Your task to perform on an android device: Open the phone app and click the voicemail tab. Image 0: 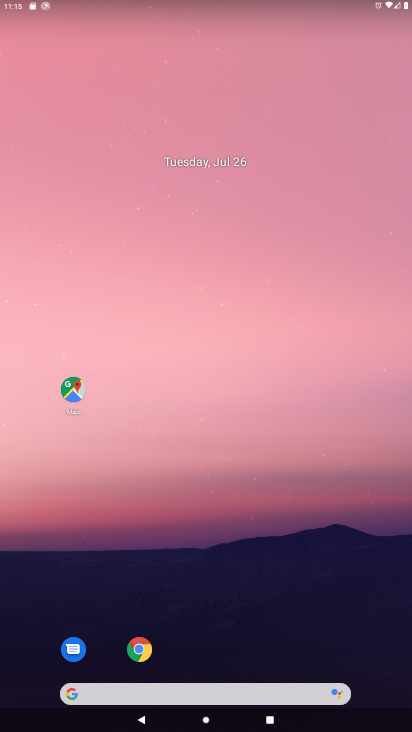
Step 0: drag from (221, 657) to (249, 104)
Your task to perform on an android device: Open the phone app and click the voicemail tab. Image 1: 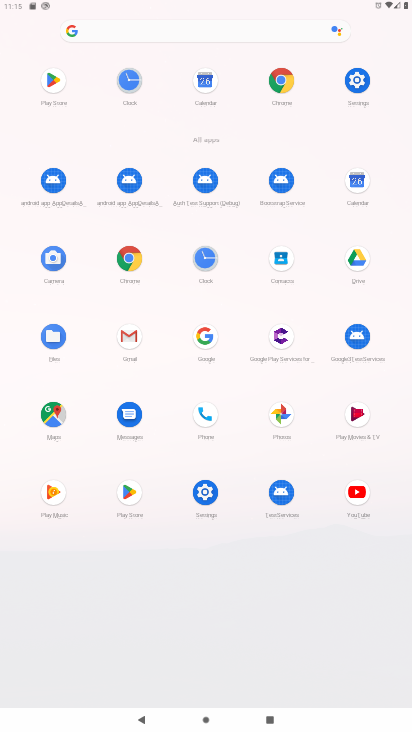
Step 1: click (203, 417)
Your task to perform on an android device: Open the phone app and click the voicemail tab. Image 2: 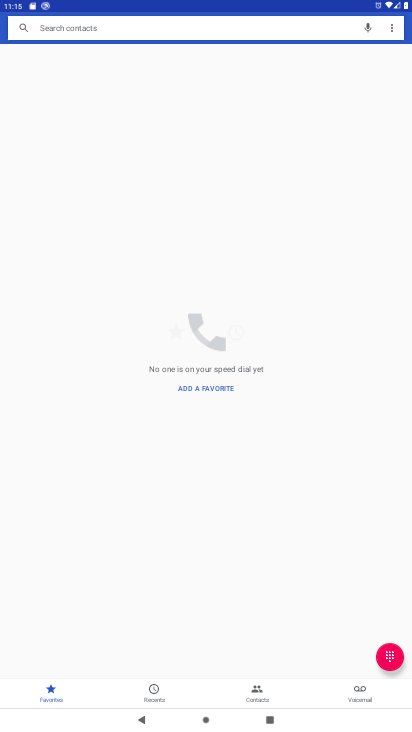
Step 2: click (366, 691)
Your task to perform on an android device: Open the phone app and click the voicemail tab. Image 3: 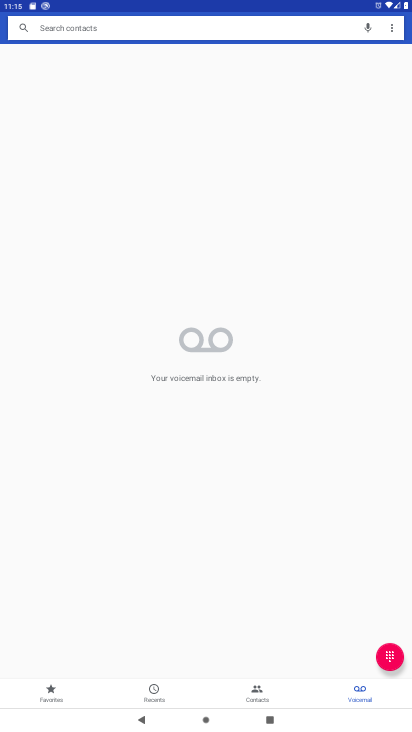
Step 3: task complete